Your task to perform on an android device: turn on notifications settings in the gmail app Image 0: 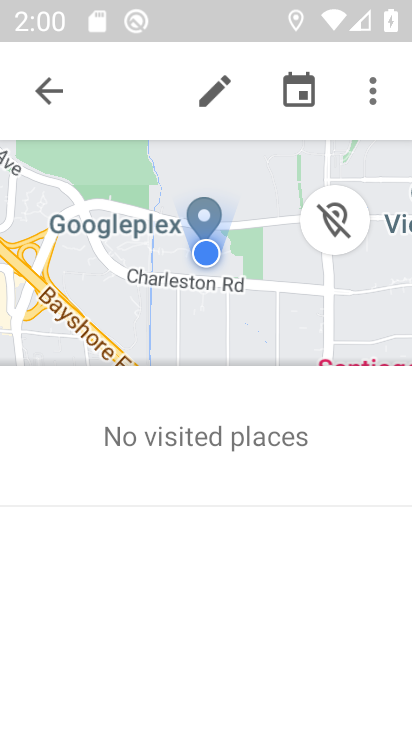
Step 0: press home button
Your task to perform on an android device: turn on notifications settings in the gmail app Image 1: 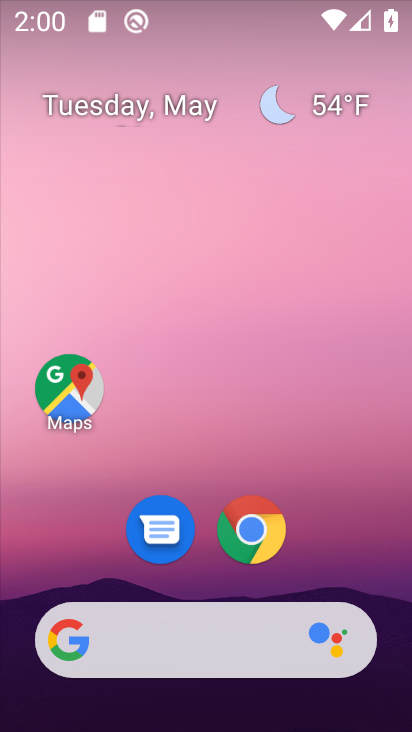
Step 1: drag from (312, 569) to (338, 246)
Your task to perform on an android device: turn on notifications settings in the gmail app Image 2: 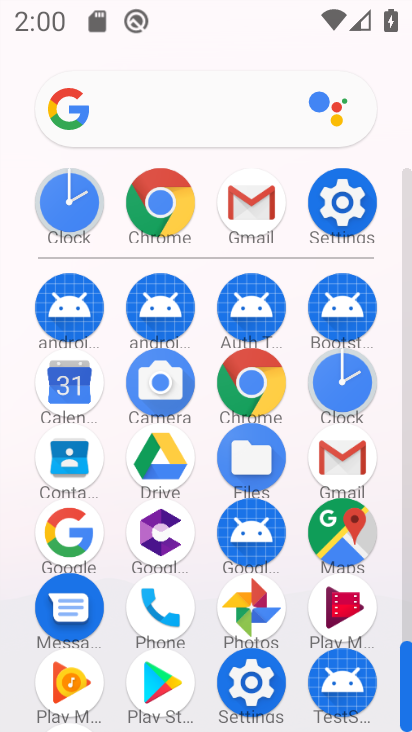
Step 2: click (342, 442)
Your task to perform on an android device: turn on notifications settings in the gmail app Image 3: 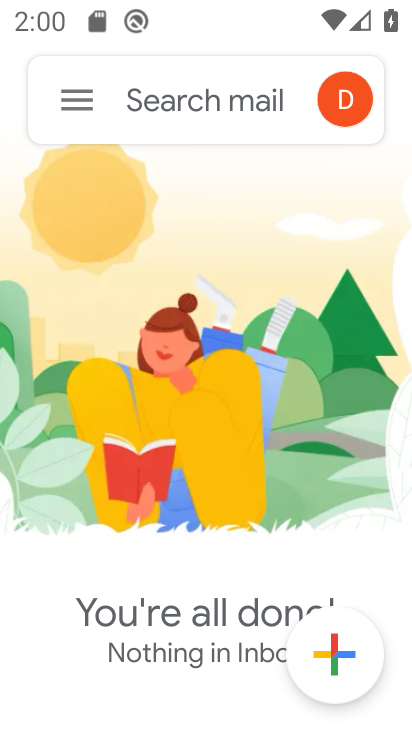
Step 3: click (69, 84)
Your task to perform on an android device: turn on notifications settings in the gmail app Image 4: 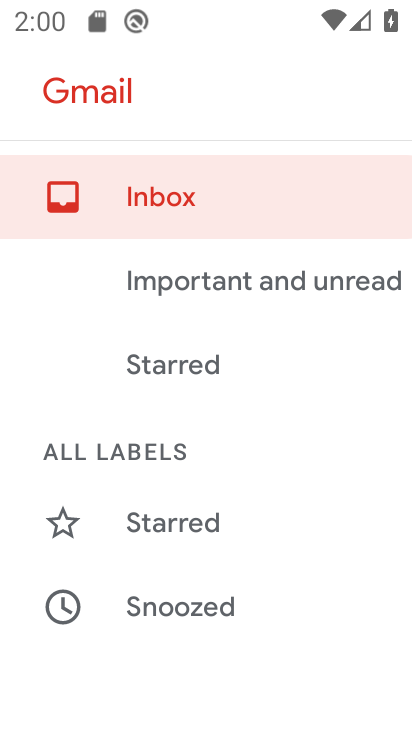
Step 4: drag from (193, 571) to (246, 205)
Your task to perform on an android device: turn on notifications settings in the gmail app Image 5: 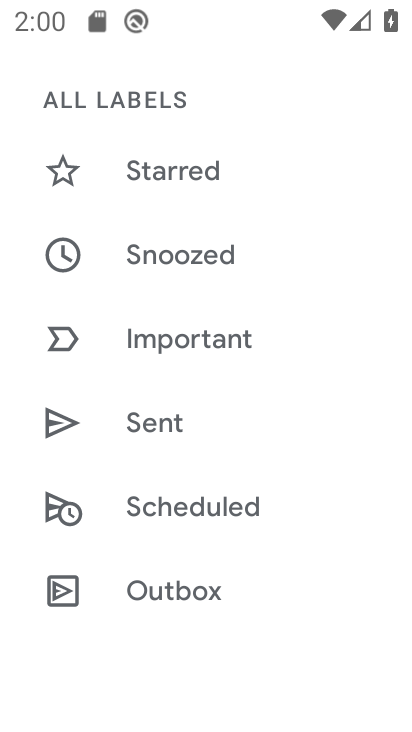
Step 5: click (165, 262)
Your task to perform on an android device: turn on notifications settings in the gmail app Image 6: 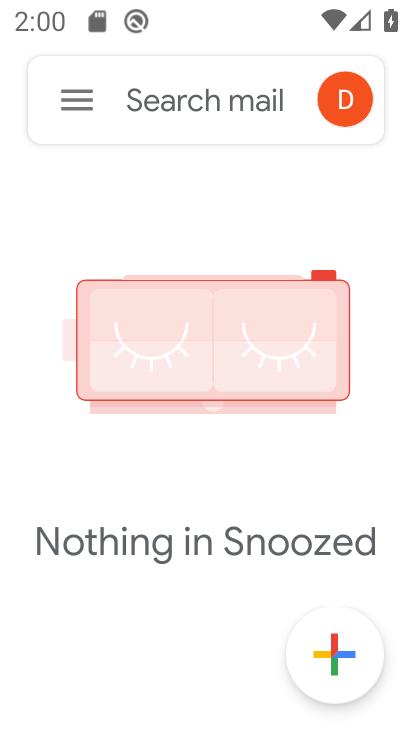
Step 6: click (83, 94)
Your task to perform on an android device: turn on notifications settings in the gmail app Image 7: 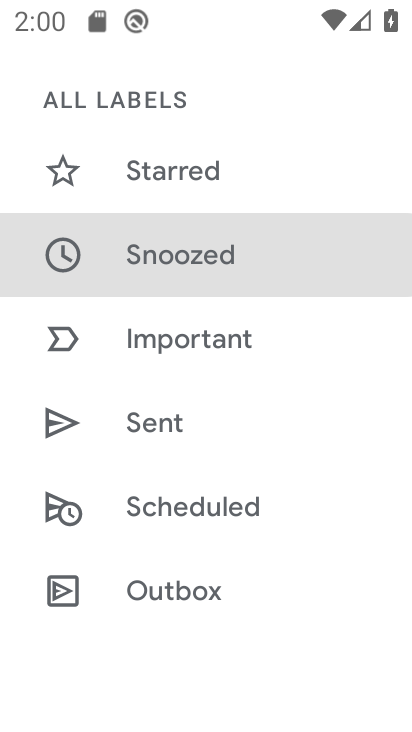
Step 7: drag from (194, 598) to (261, 261)
Your task to perform on an android device: turn on notifications settings in the gmail app Image 8: 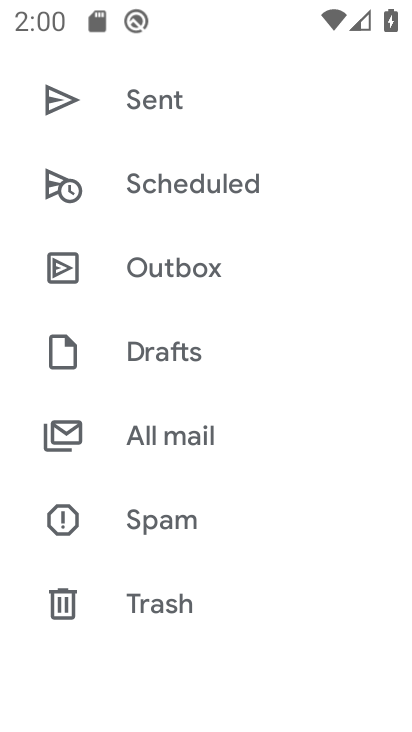
Step 8: drag from (184, 543) to (201, 274)
Your task to perform on an android device: turn on notifications settings in the gmail app Image 9: 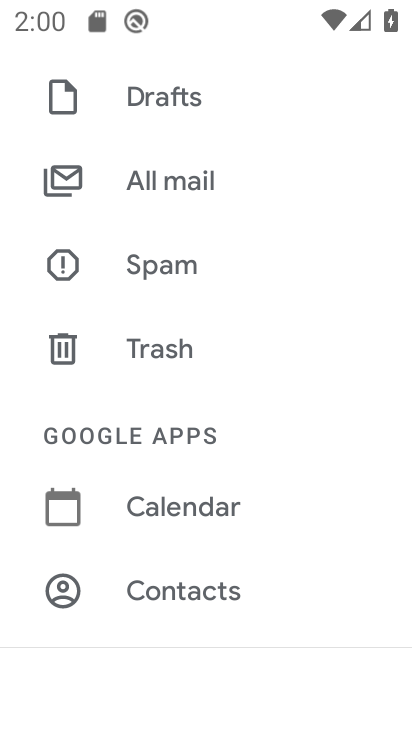
Step 9: drag from (201, 495) to (257, 191)
Your task to perform on an android device: turn on notifications settings in the gmail app Image 10: 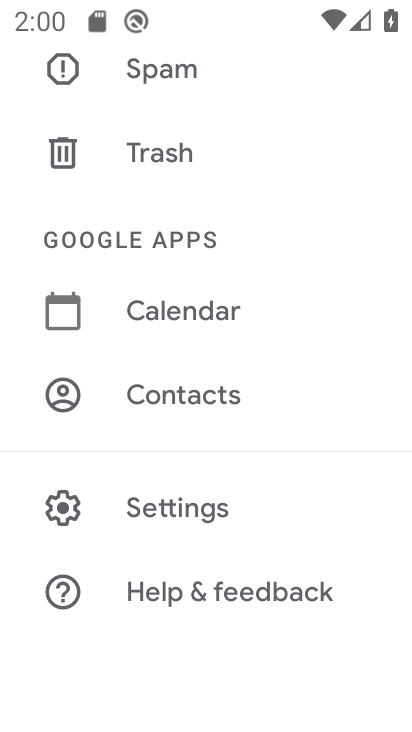
Step 10: click (163, 494)
Your task to perform on an android device: turn on notifications settings in the gmail app Image 11: 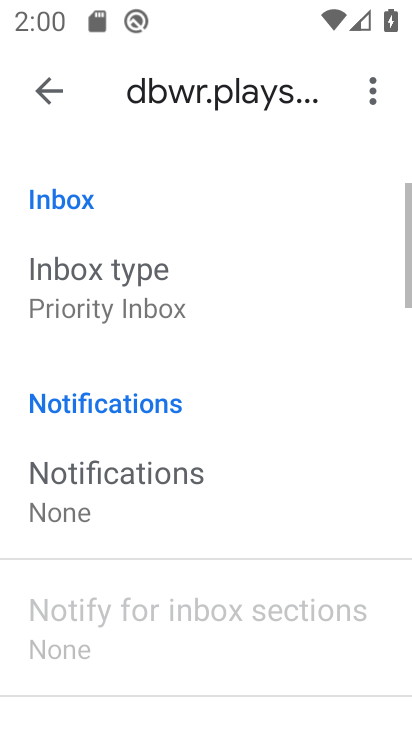
Step 11: click (133, 463)
Your task to perform on an android device: turn on notifications settings in the gmail app Image 12: 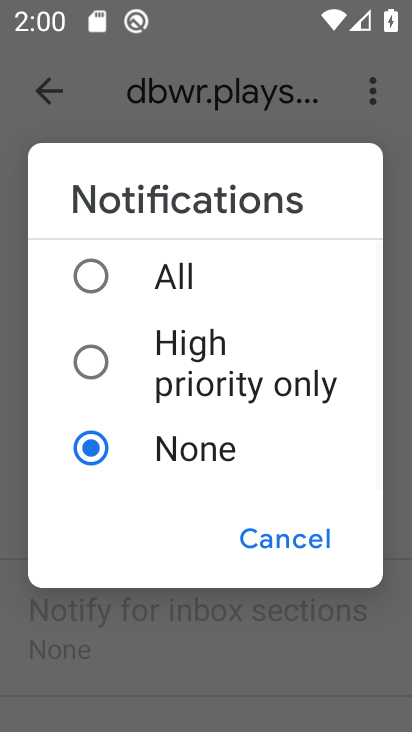
Step 12: click (161, 284)
Your task to perform on an android device: turn on notifications settings in the gmail app Image 13: 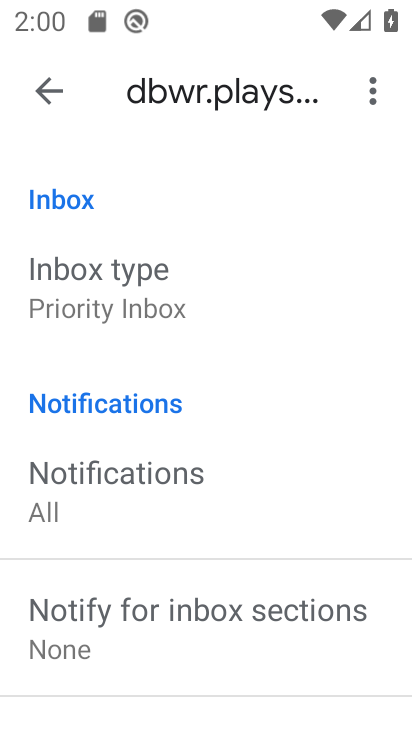
Step 13: task complete